Your task to perform on an android device: Open Google Chrome and click the shortcut for Amazon.com Image 0: 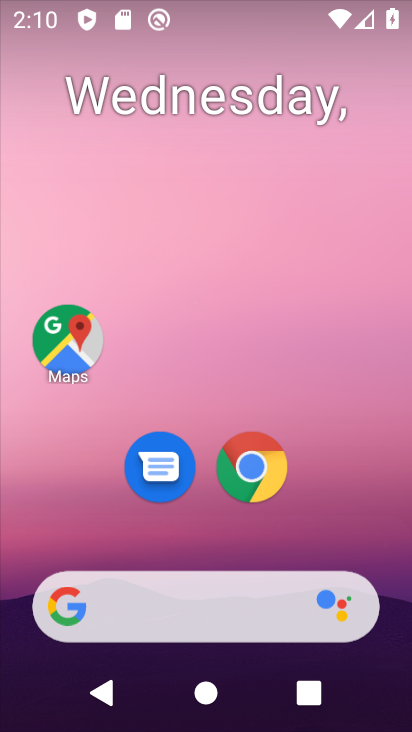
Step 0: press home button
Your task to perform on an android device: Open Google Chrome and click the shortcut for Amazon.com Image 1: 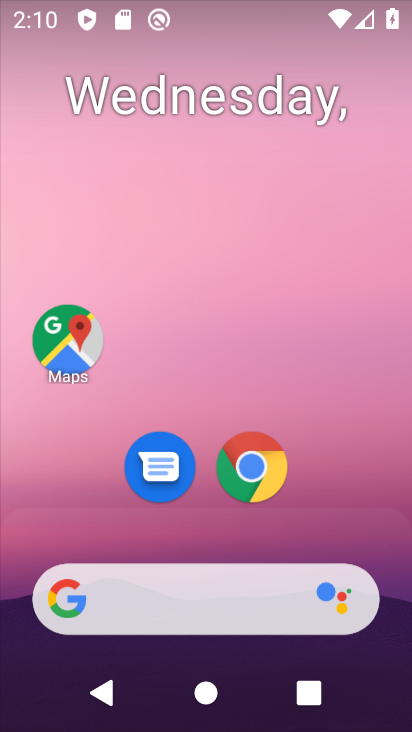
Step 1: click (253, 484)
Your task to perform on an android device: Open Google Chrome and click the shortcut for Amazon.com Image 2: 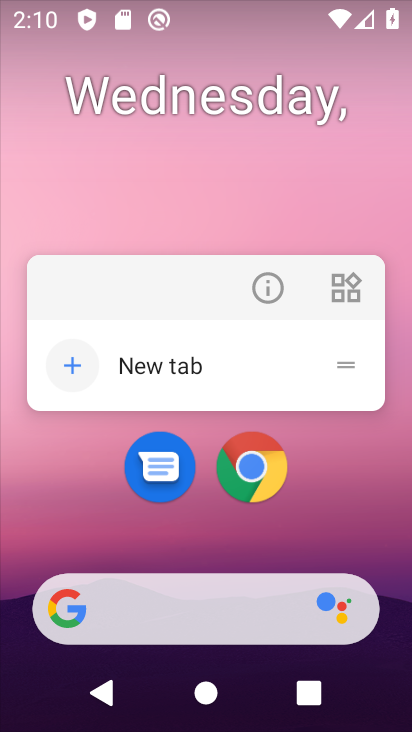
Step 2: click (247, 470)
Your task to perform on an android device: Open Google Chrome and click the shortcut for Amazon.com Image 3: 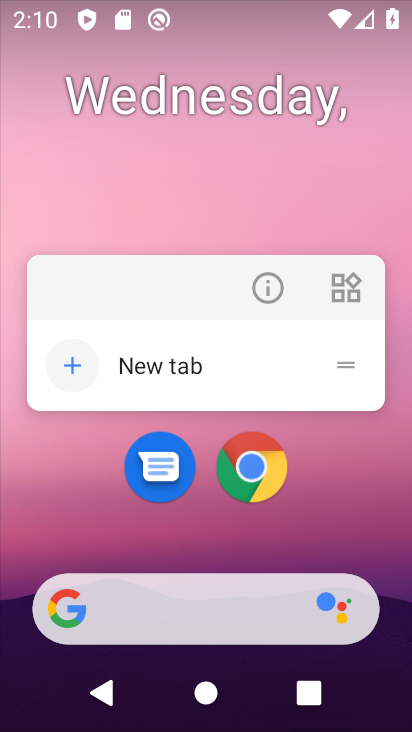
Step 3: click (243, 478)
Your task to perform on an android device: Open Google Chrome and click the shortcut for Amazon.com Image 4: 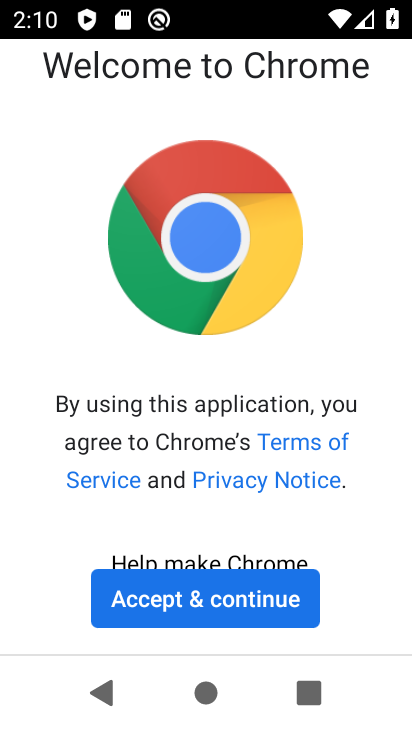
Step 4: click (202, 599)
Your task to perform on an android device: Open Google Chrome and click the shortcut for Amazon.com Image 5: 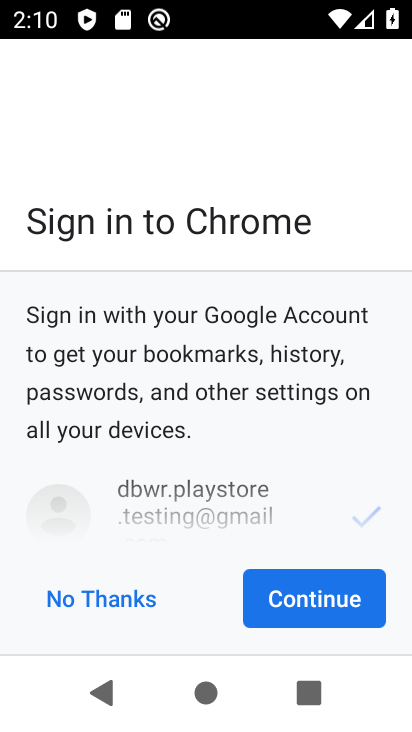
Step 5: click (305, 601)
Your task to perform on an android device: Open Google Chrome and click the shortcut for Amazon.com Image 6: 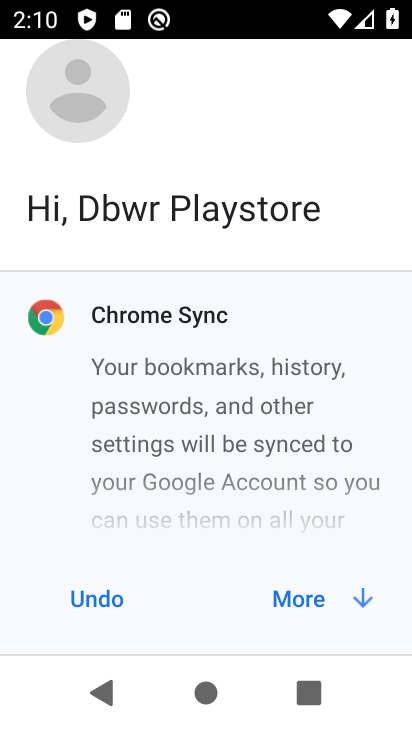
Step 6: click (302, 597)
Your task to perform on an android device: Open Google Chrome and click the shortcut for Amazon.com Image 7: 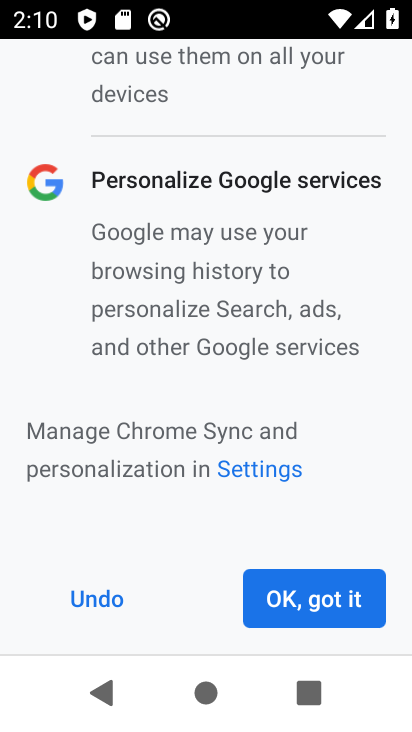
Step 7: click (316, 600)
Your task to perform on an android device: Open Google Chrome and click the shortcut for Amazon.com Image 8: 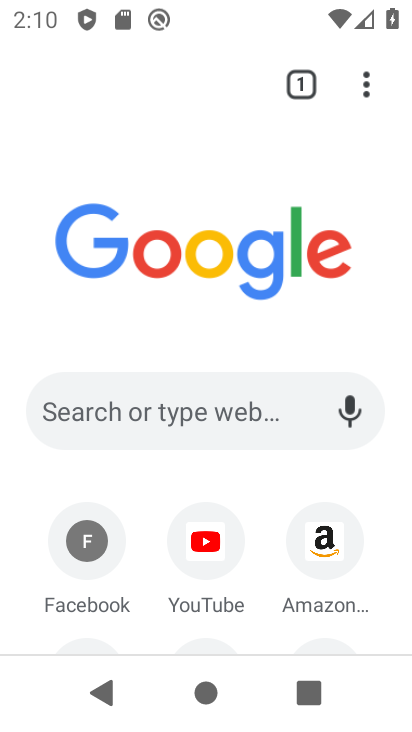
Step 8: click (320, 548)
Your task to perform on an android device: Open Google Chrome and click the shortcut for Amazon.com Image 9: 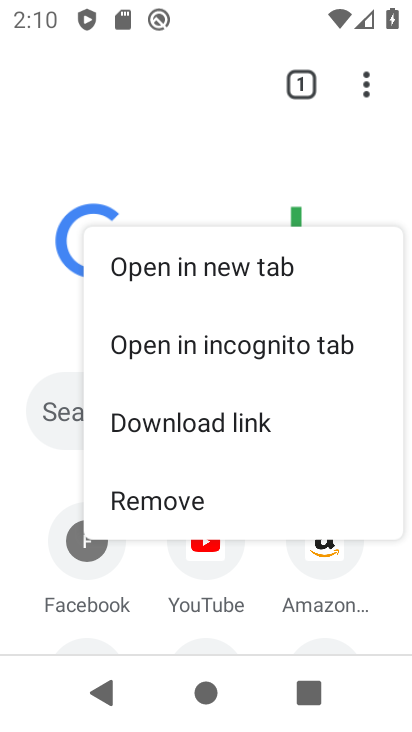
Step 9: click (322, 559)
Your task to perform on an android device: Open Google Chrome and click the shortcut for Amazon.com Image 10: 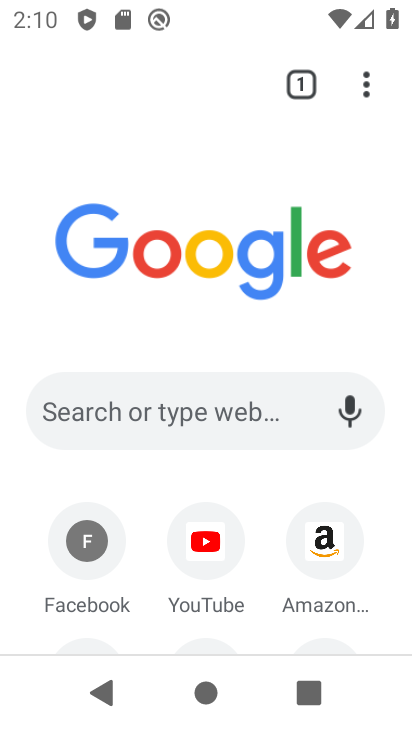
Step 10: click (322, 550)
Your task to perform on an android device: Open Google Chrome and click the shortcut for Amazon.com Image 11: 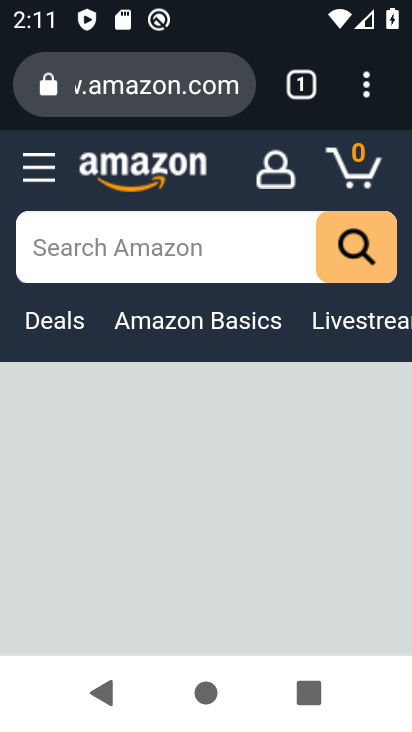
Step 11: task complete